Your task to perform on an android device: add a contact in the contacts app Image 0: 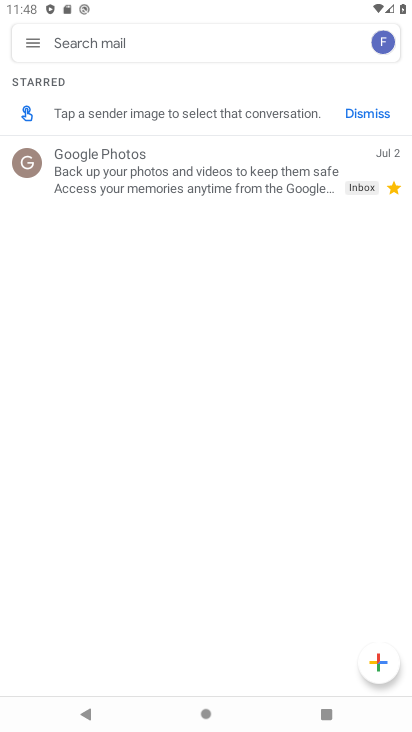
Step 0: press home button
Your task to perform on an android device: add a contact in the contacts app Image 1: 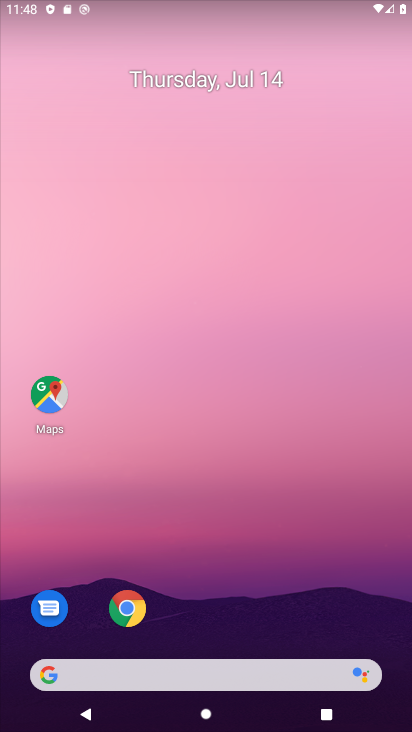
Step 1: drag from (222, 681) to (313, 133)
Your task to perform on an android device: add a contact in the contacts app Image 2: 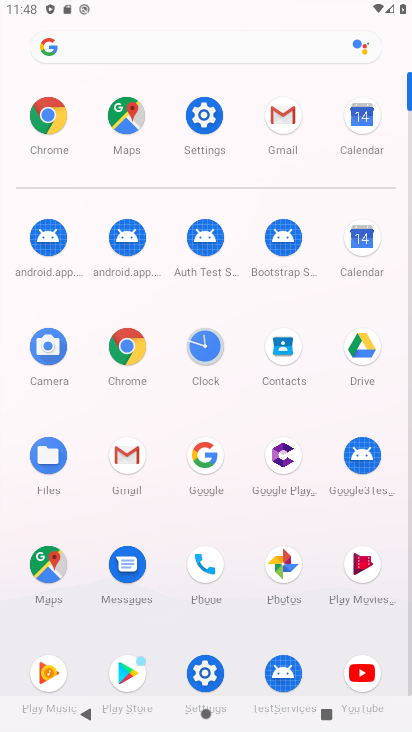
Step 2: click (286, 362)
Your task to perform on an android device: add a contact in the contacts app Image 3: 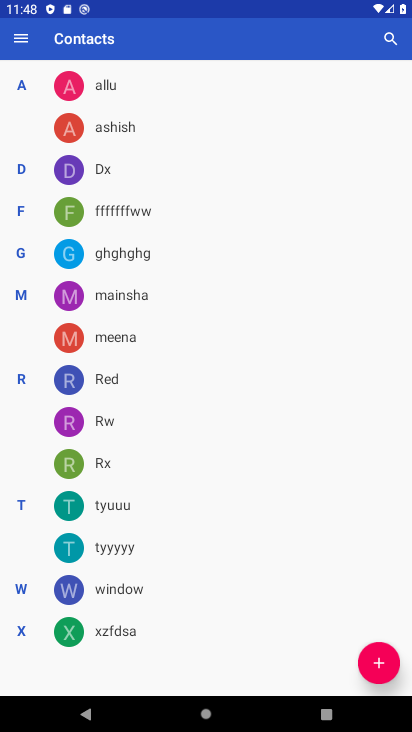
Step 3: click (379, 670)
Your task to perform on an android device: add a contact in the contacts app Image 4: 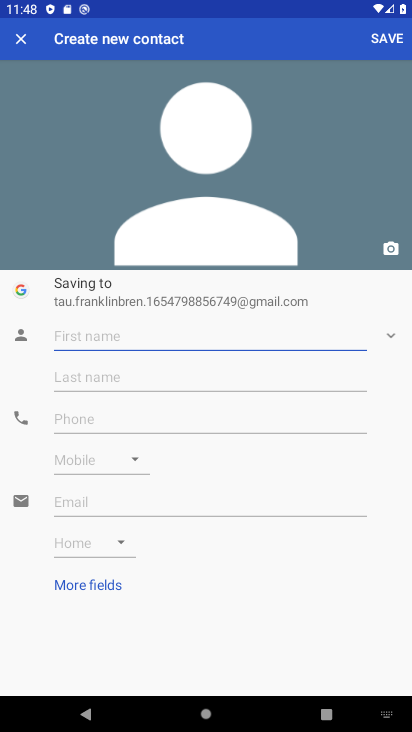
Step 4: type "shiv"
Your task to perform on an android device: add a contact in the contacts app Image 5: 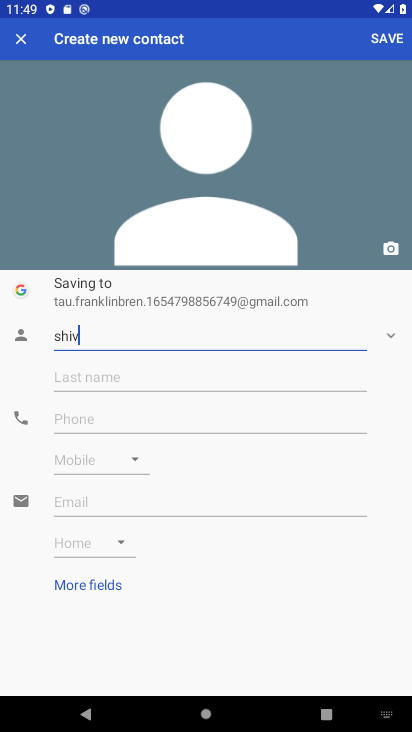
Step 5: click (78, 415)
Your task to perform on an android device: add a contact in the contacts app Image 6: 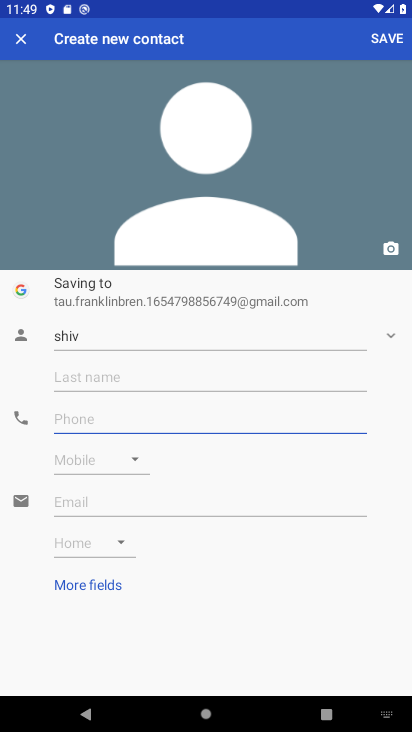
Step 6: type "9876567897"
Your task to perform on an android device: add a contact in the contacts app Image 7: 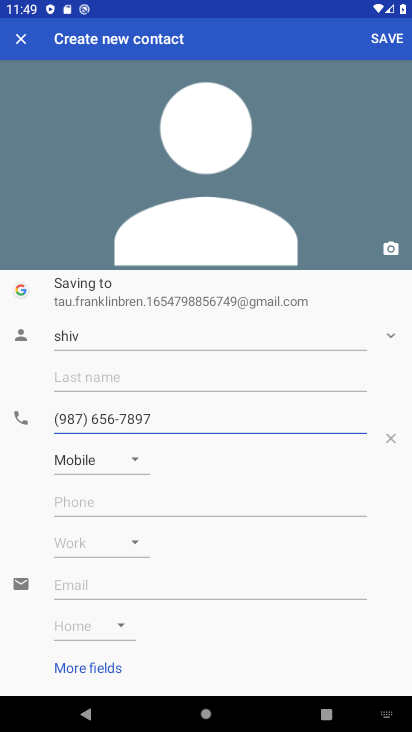
Step 7: click (384, 39)
Your task to perform on an android device: add a contact in the contacts app Image 8: 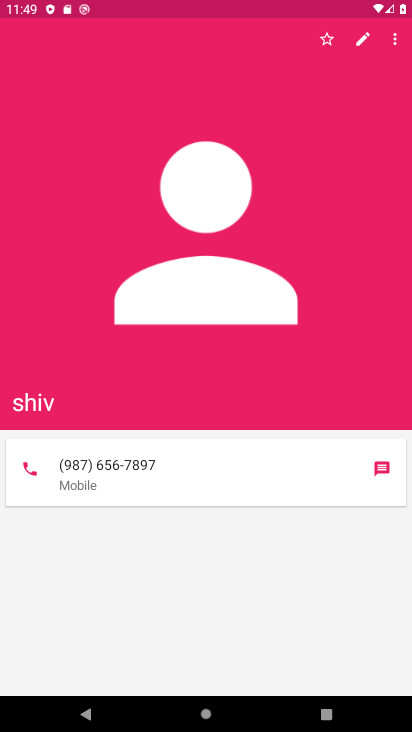
Step 8: task complete